Your task to perform on an android device: Go to Wikipedia Image 0: 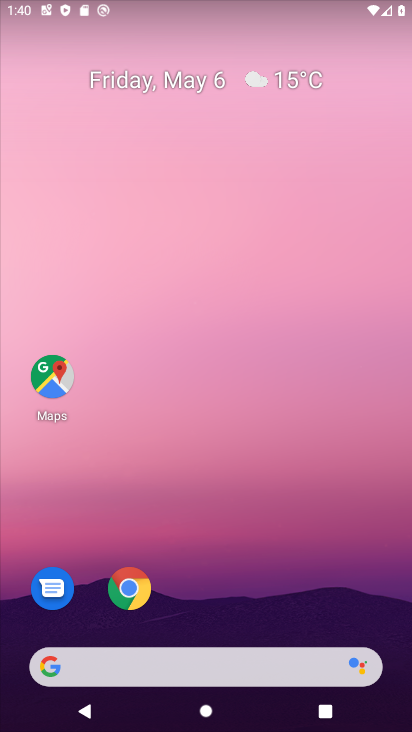
Step 0: drag from (202, 637) to (202, 333)
Your task to perform on an android device: Go to Wikipedia Image 1: 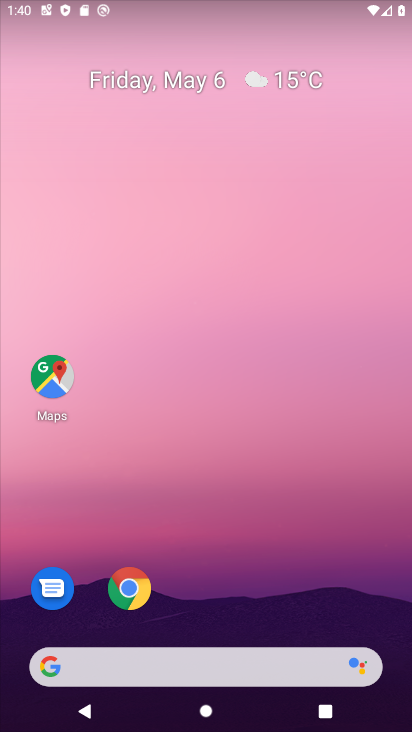
Step 1: drag from (201, 620) to (210, 261)
Your task to perform on an android device: Go to Wikipedia Image 2: 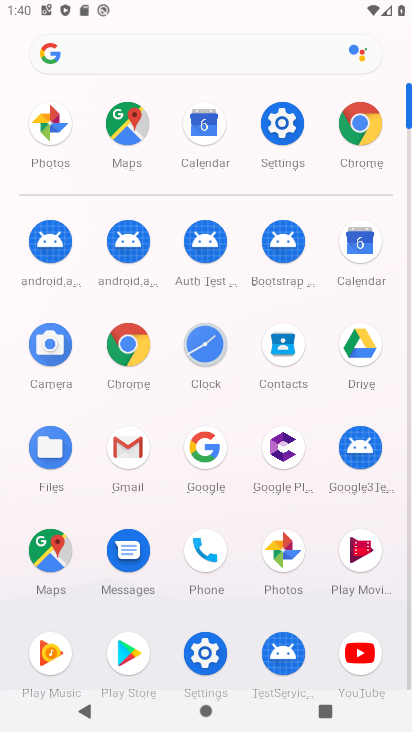
Step 2: click (360, 120)
Your task to perform on an android device: Go to Wikipedia Image 3: 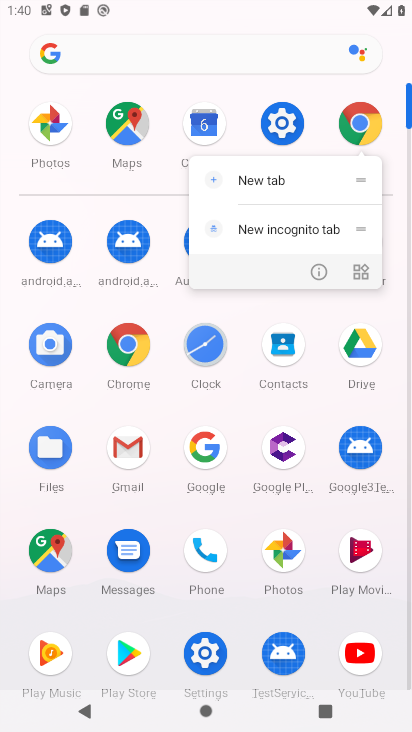
Step 3: click (314, 271)
Your task to perform on an android device: Go to Wikipedia Image 4: 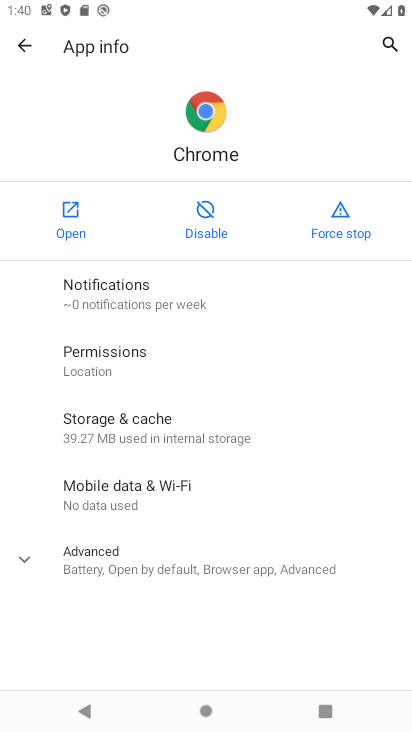
Step 4: click (72, 193)
Your task to perform on an android device: Go to Wikipedia Image 5: 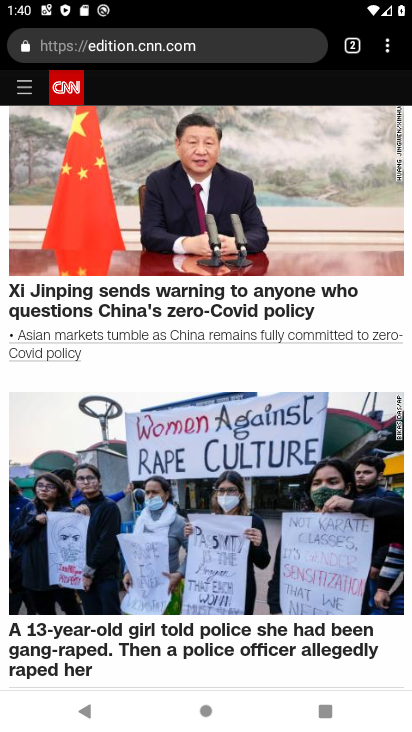
Step 5: drag from (238, 587) to (241, 325)
Your task to perform on an android device: Go to Wikipedia Image 6: 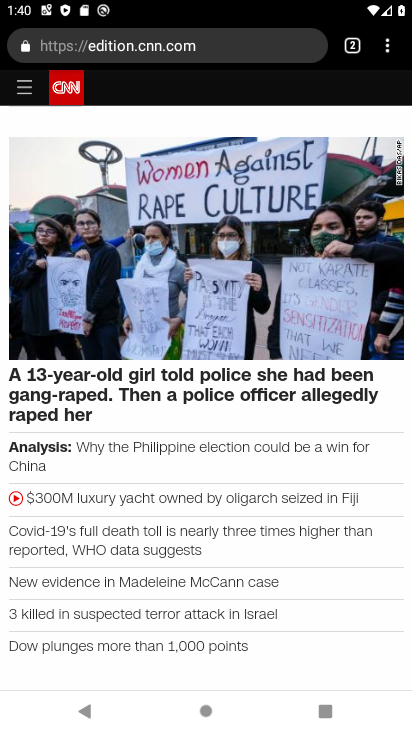
Step 6: drag from (241, 469) to (237, 169)
Your task to perform on an android device: Go to Wikipedia Image 7: 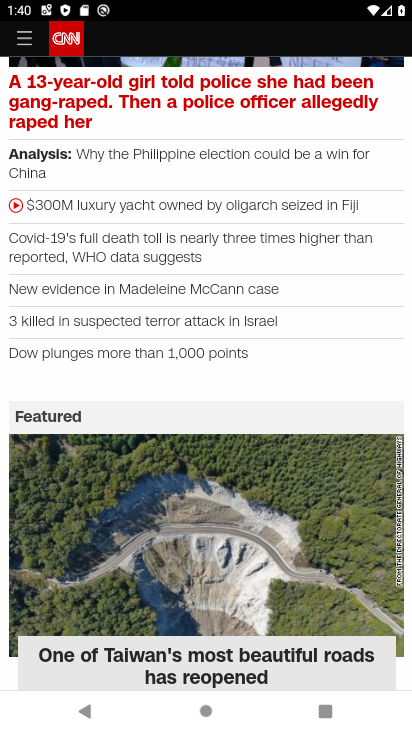
Step 7: drag from (228, 598) to (252, 305)
Your task to perform on an android device: Go to Wikipedia Image 8: 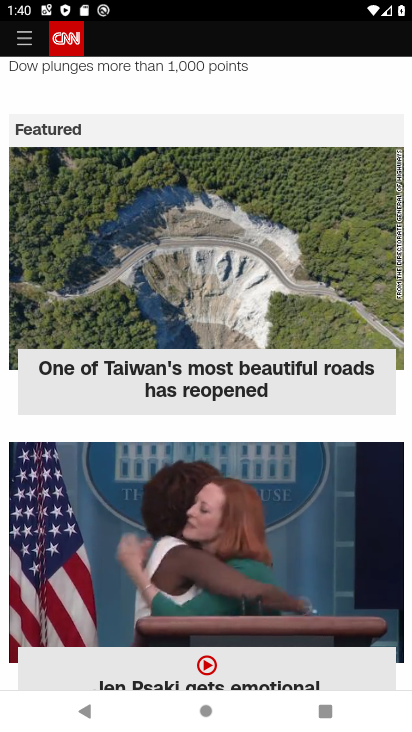
Step 8: drag from (216, 536) to (222, 298)
Your task to perform on an android device: Go to Wikipedia Image 9: 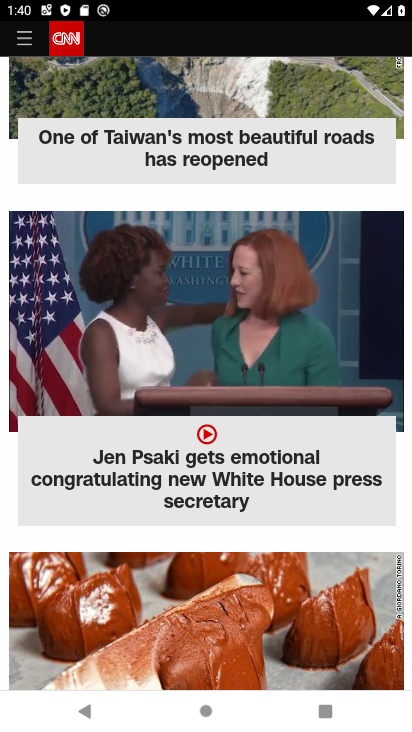
Step 9: drag from (230, 649) to (267, 238)
Your task to perform on an android device: Go to Wikipedia Image 10: 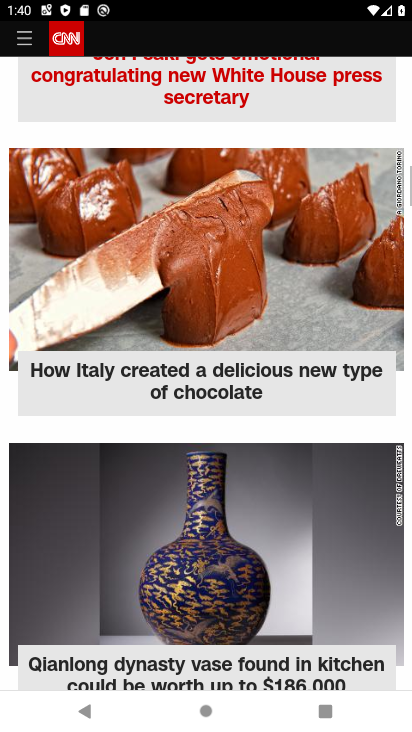
Step 10: drag from (285, 142) to (337, 715)
Your task to perform on an android device: Go to Wikipedia Image 11: 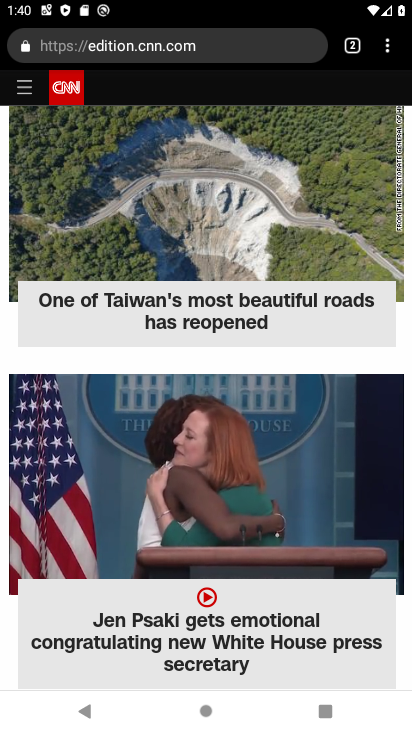
Step 11: drag from (228, 288) to (238, 731)
Your task to perform on an android device: Go to Wikipedia Image 12: 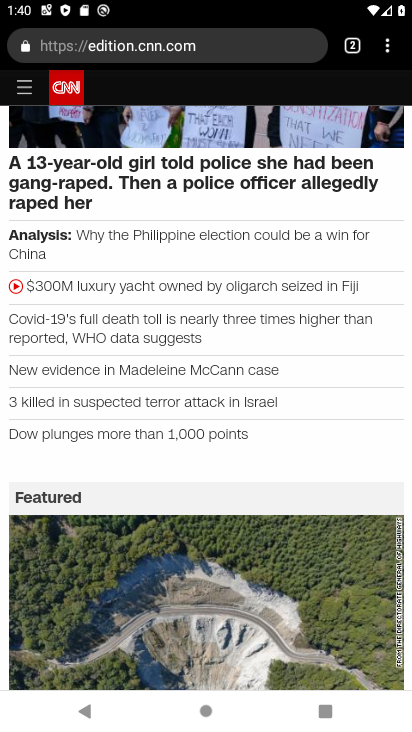
Step 12: click (253, 49)
Your task to perform on an android device: Go to Wikipedia Image 13: 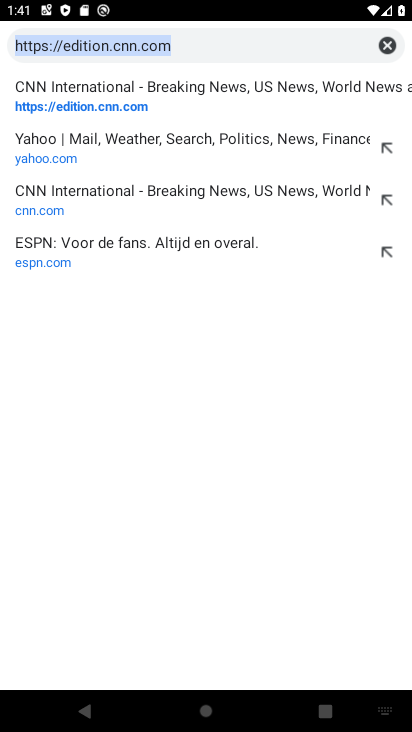
Step 13: click (381, 43)
Your task to perform on an android device: Go to Wikipedia Image 14: 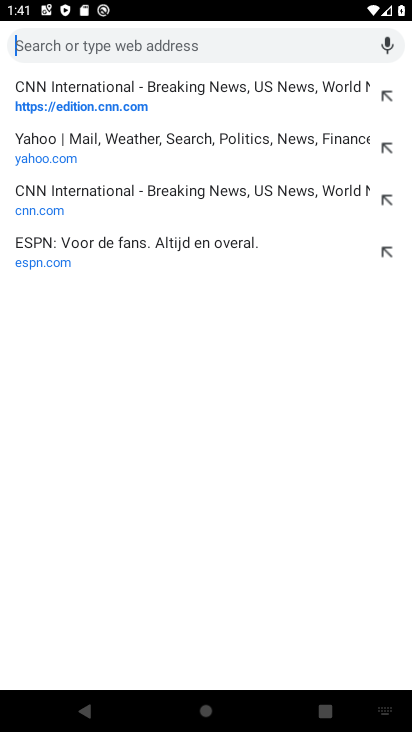
Step 14: press back button
Your task to perform on an android device: Go to Wikipedia Image 15: 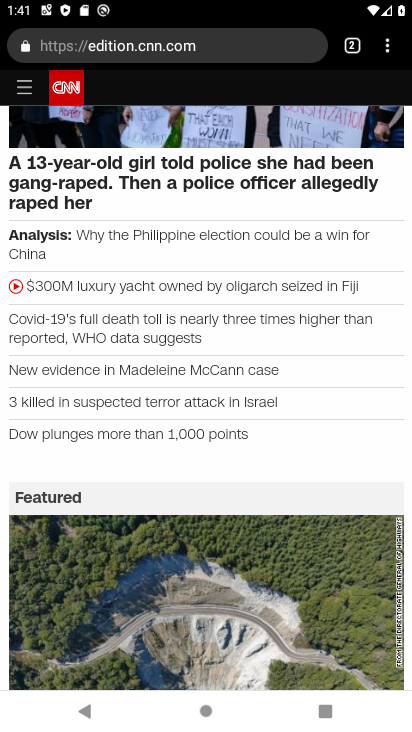
Step 15: click (349, 47)
Your task to perform on an android device: Go to Wikipedia Image 16: 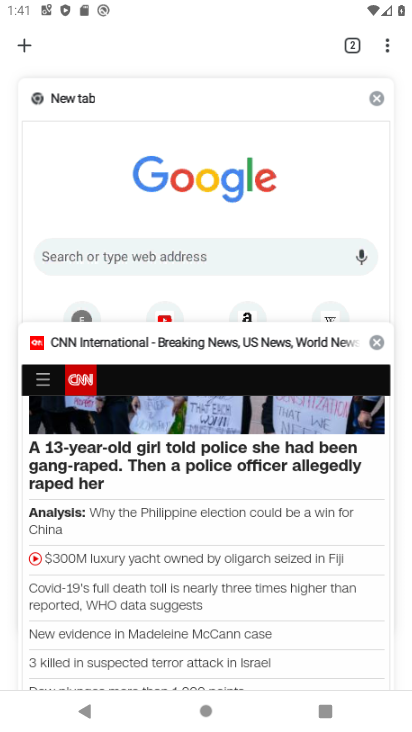
Step 16: click (381, 347)
Your task to perform on an android device: Go to Wikipedia Image 17: 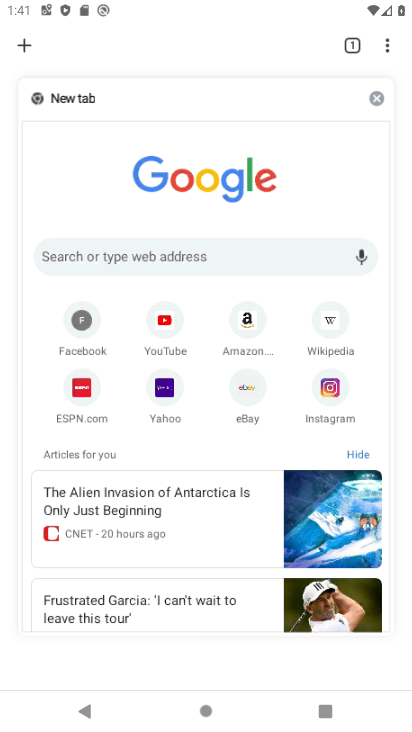
Step 17: click (326, 331)
Your task to perform on an android device: Go to Wikipedia Image 18: 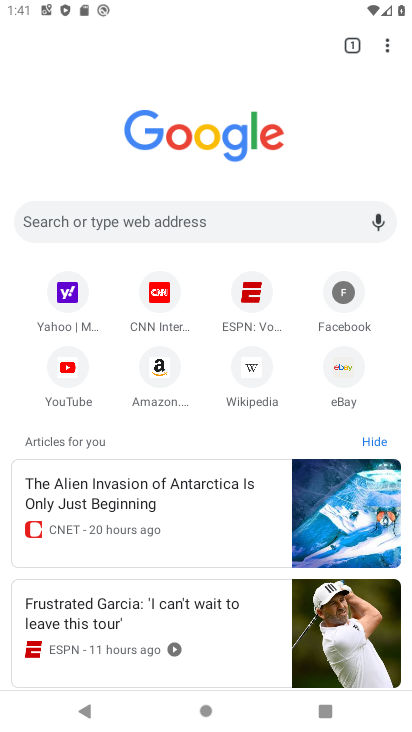
Step 18: click (263, 376)
Your task to perform on an android device: Go to Wikipedia Image 19: 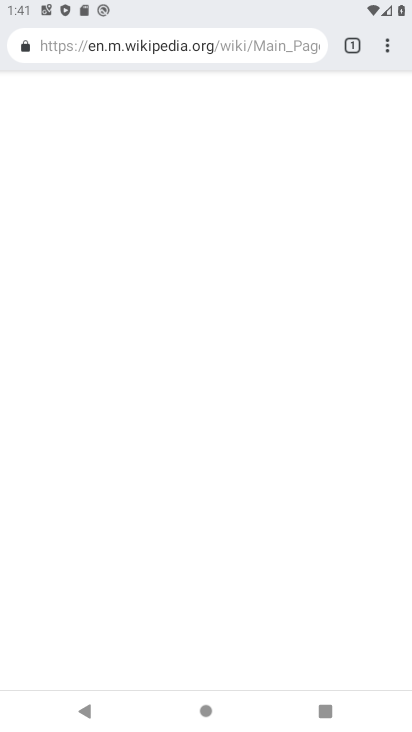
Step 19: task complete